Your task to perform on an android device: Open maps Image 0: 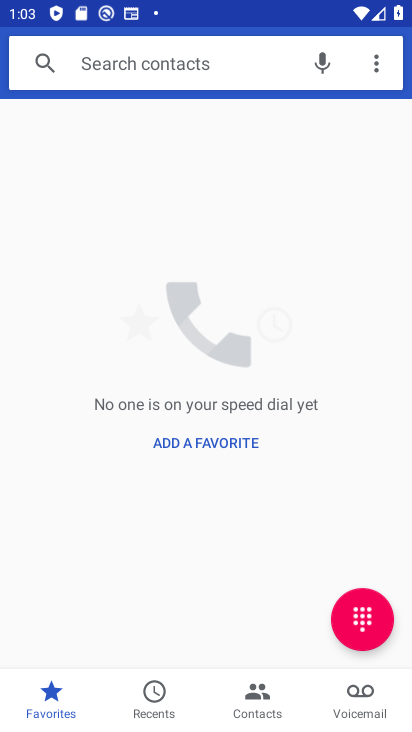
Step 0: press home button
Your task to perform on an android device: Open maps Image 1: 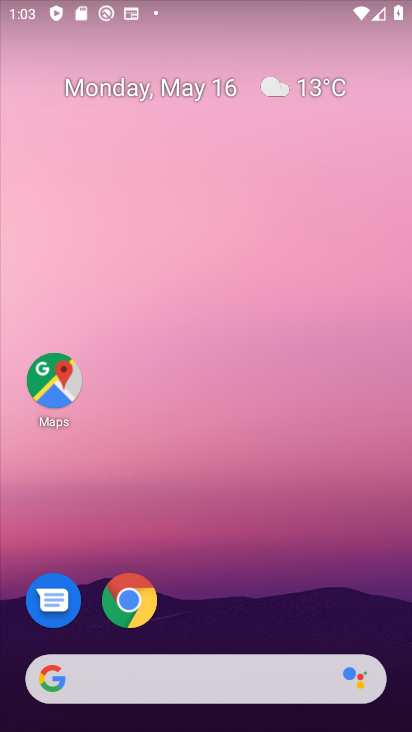
Step 1: click (46, 381)
Your task to perform on an android device: Open maps Image 2: 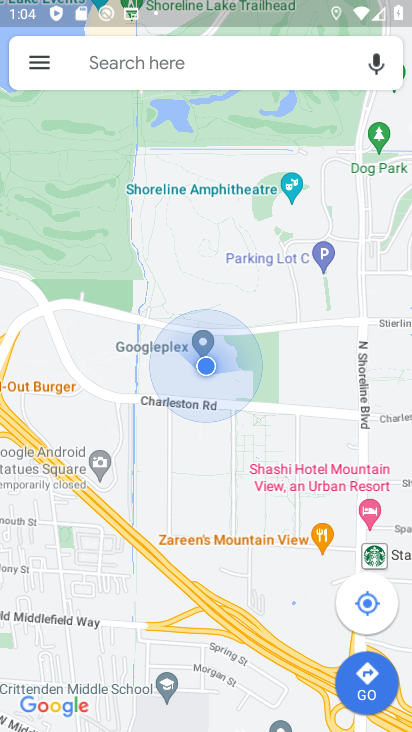
Step 2: task complete